Your task to perform on an android device: Open the phone app and click the voicemail tab. Image 0: 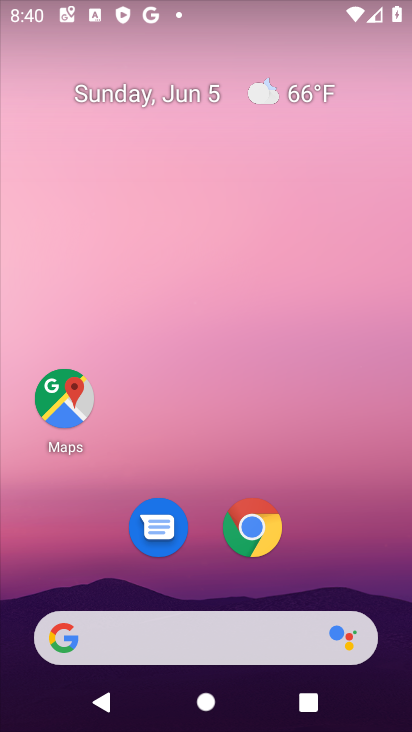
Step 0: drag from (205, 582) to (210, 156)
Your task to perform on an android device: Open the phone app and click the voicemail tab. Image 1: 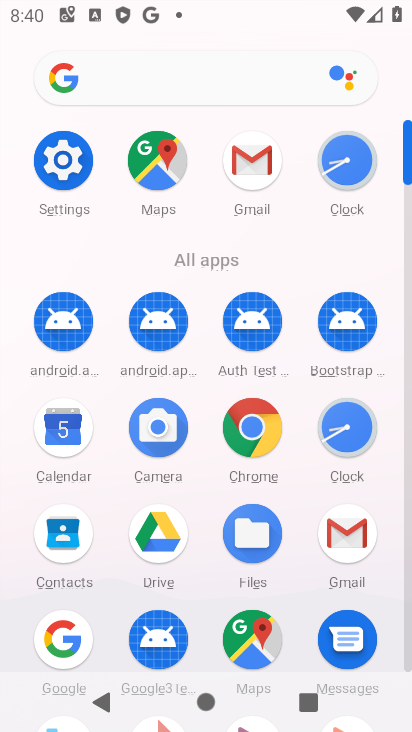
Step 1: drag from (199, 607) to (195, 163)
Your task to perform on an android device: Open the phone app and click the voicemail tab. Image 2: 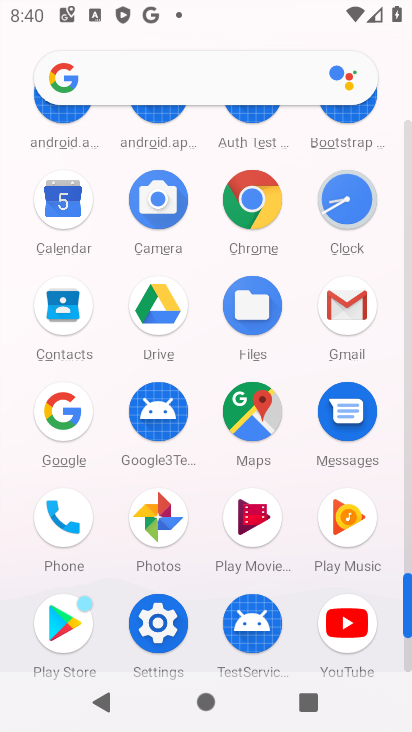
Step 2: click (52, 533)
Your task to perform on an android device: Open the phone app and click the voicemail tab. Image 3: 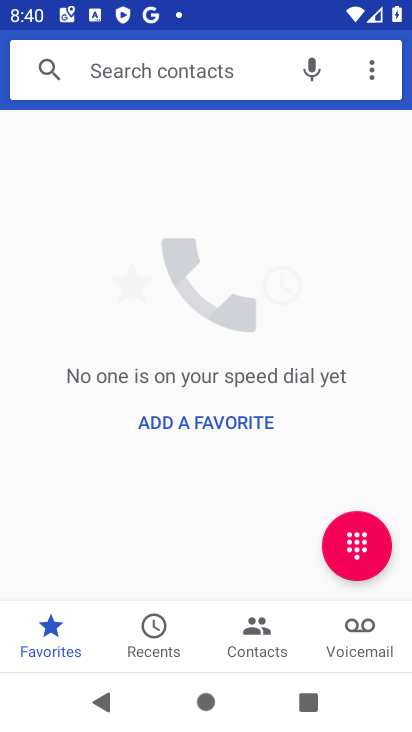
Step 3: click (382, 636)
Your task to perform on an android device: Open the phone app and click the voicemail tab. Image 4: 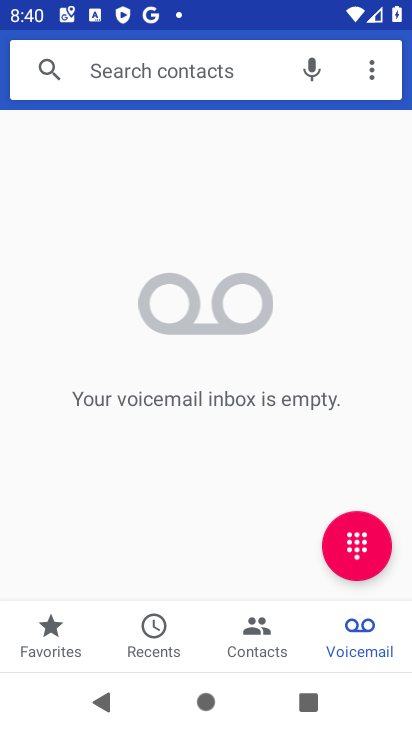
Step 4: task complete